Your task to perform on an android device: Go to ESPN.com Image 0: 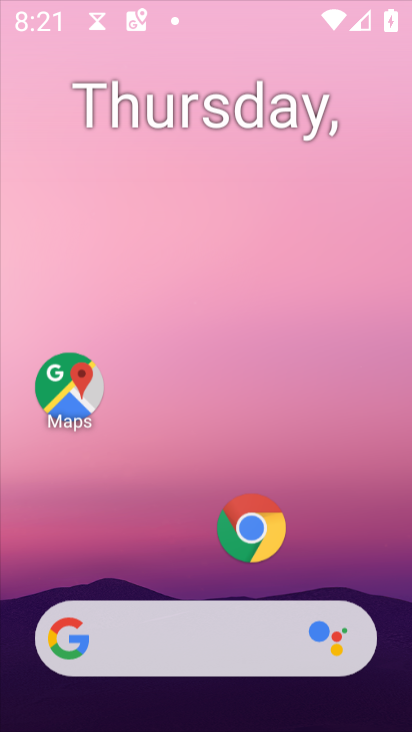
Step 0: press home button
Your task to perform on an android device: Go to ESPN.com Image 1: 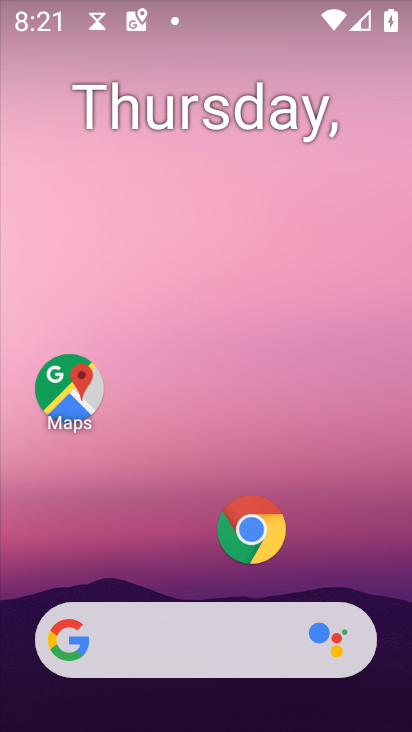
Step 1: click (253, 524)
Your task to perform on an android device: Go to ESPN.com Image 2: 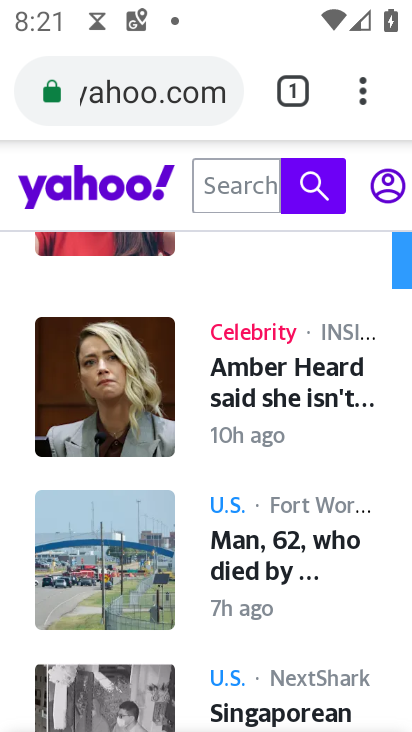
Step 2: click (294, 89)
Your task to perform on an android device: Go to ESPN.com Image 3: 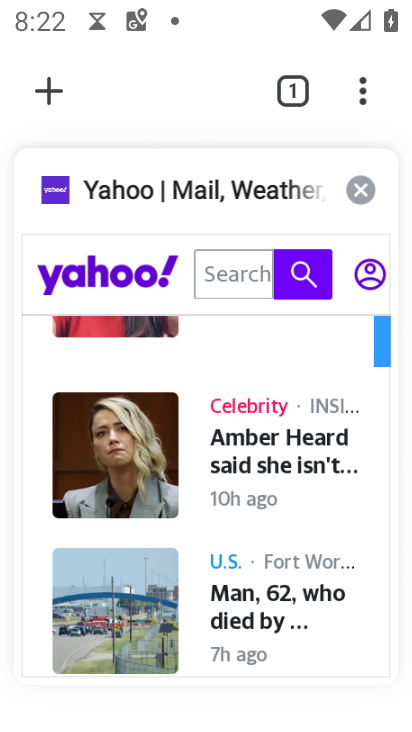
Step 3: click (57, 98)
Your task to perform on an android device: Go to ESPN.com Image 4: 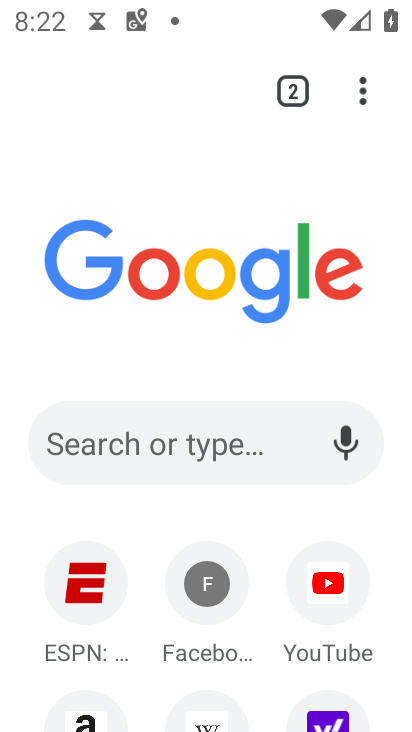
Step 4: click (87, 586)
Your task to perform on an android device: Go to ESPN.com Image 5: 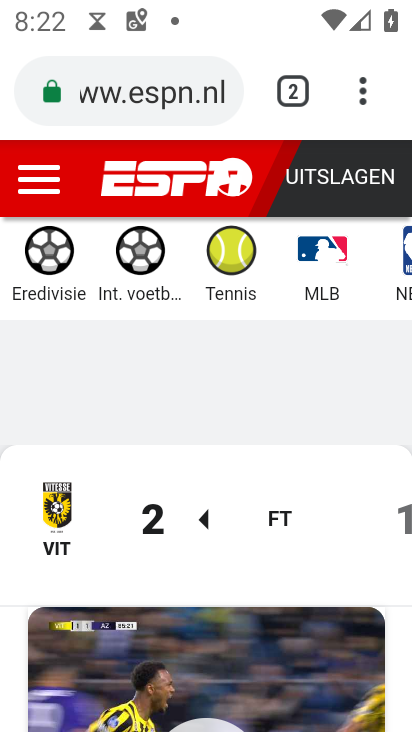
Step 5: task complete